Your task to perform on an android device: open device folders in google photos Image 0: 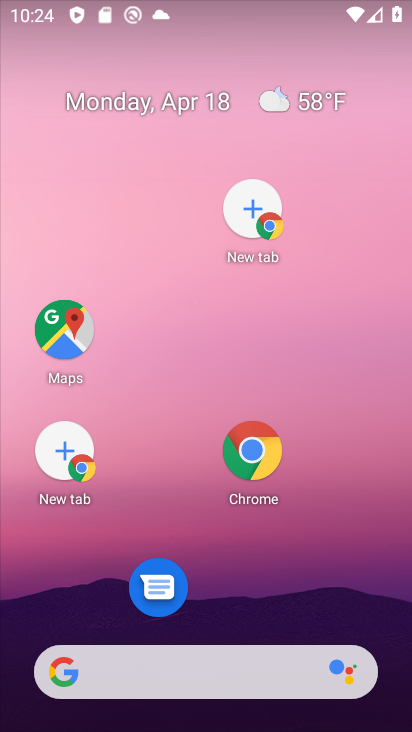
Step 0: drag from (362, 631) to (194, 140)
Your task to perform on an android device: open device folders in google photos Image 1: 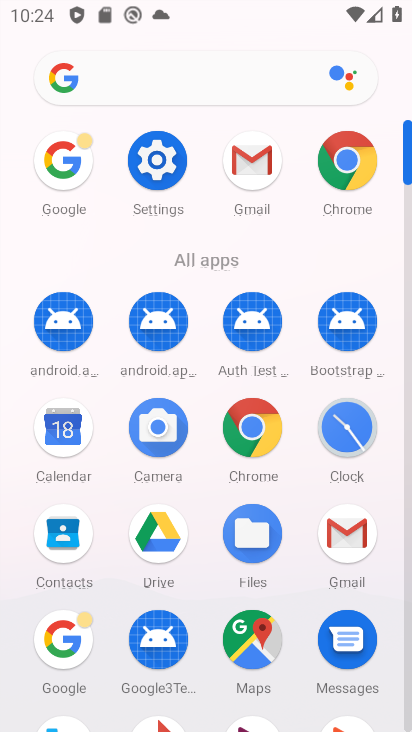
Step 1: drag from (396, 621) to (405, 692)
Your task to perform on an android device: open device folders in google photos Image 2: 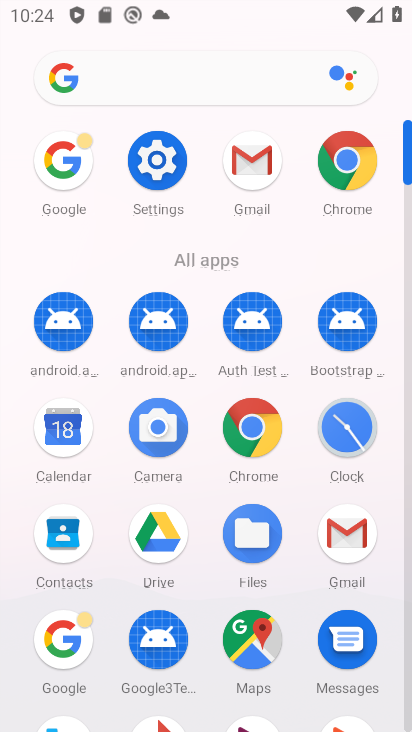
Step 2: drag from (352, 530) to (344, 196)
Your task to perform on an android device: open device folders in google photos Image 3: 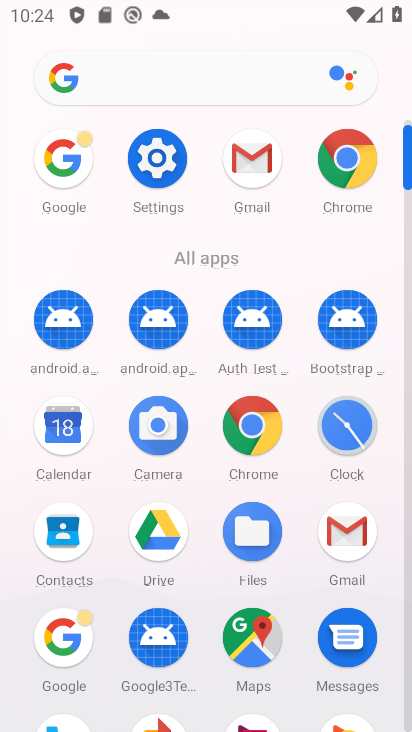
Step 3: drag from (375, 473) to (300, 96)
Your task to perform on an android device: open device folders in google photos Image 4: 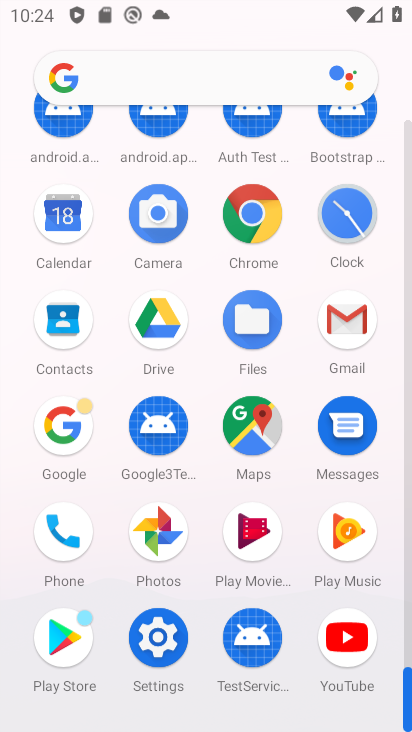
Step 4: drag from (269, 361) to (247, 12)
Your task to perform on an android device: open device folders in google photos Image 5: 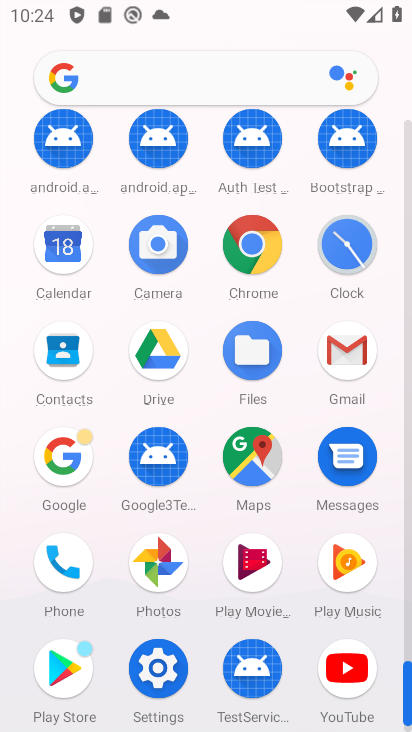
Step 5: click (156, 578)
Your task to perform on an android device: open device folders in google photos Image 6: 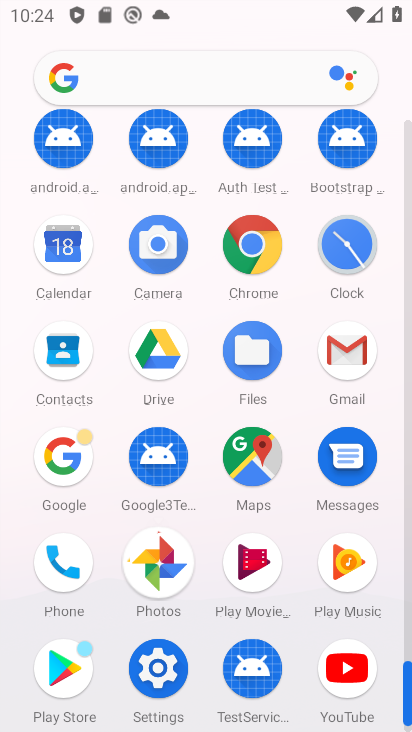
Step 6: click (156, 577)
Your task to perform on an android device: open device folders in google photos Image 7: 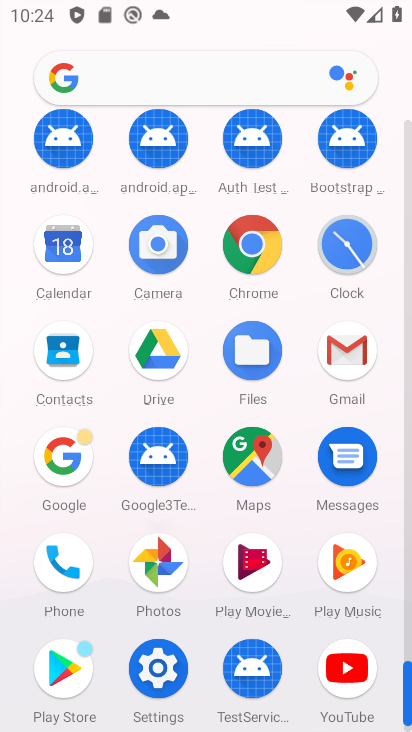
Step 7: click (156, 577)
Your task to perform on an android device: open device folders in google photos Image 8: 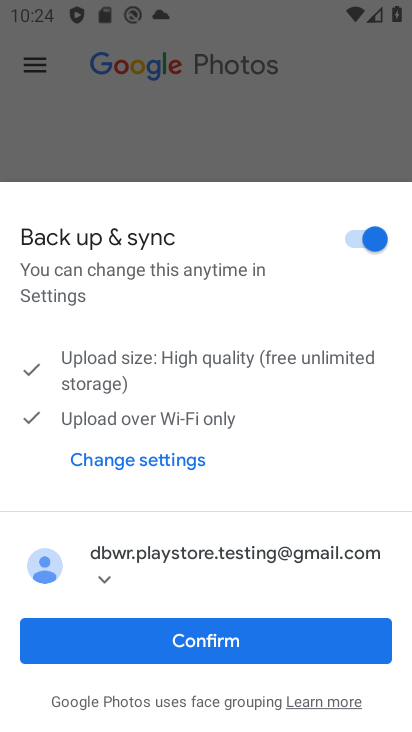
Step 8: click (221, 640)
Your task to perform on an android device: open device folders in google photos Image 9: 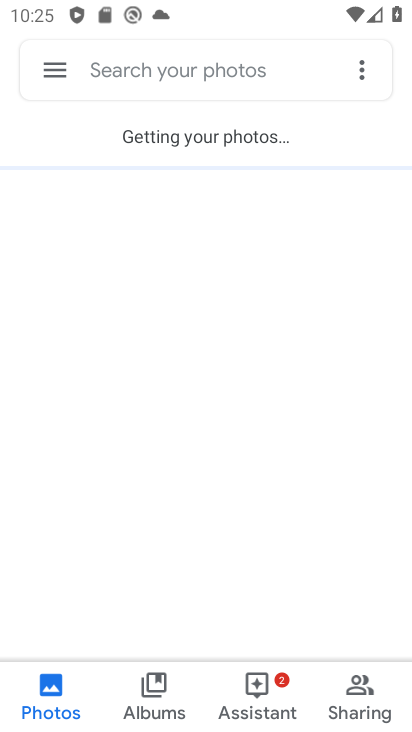
Step 9: click (62, 67)
Your task to perform on an android device: open device folders in google photos Image 10: 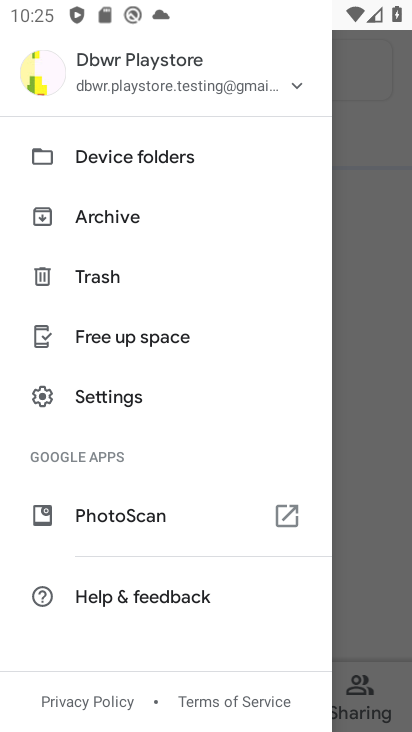
Step 10: click (119, 155)
Your task to perform on an android device: open device folders in google photos Image 11: 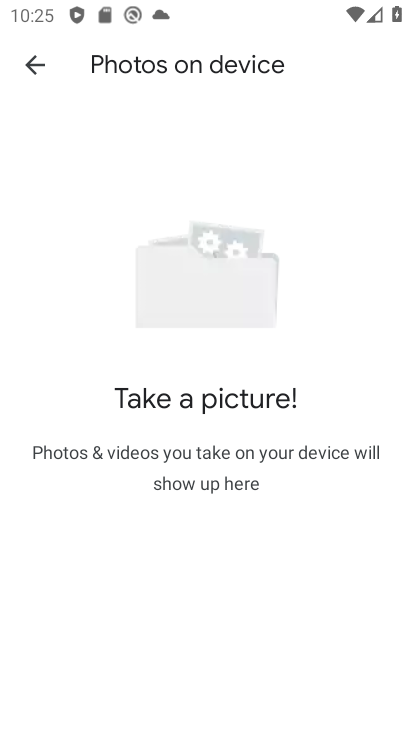
Step 11: task complete